Your task to perform on an android device: Is it going to rain tomorrow? Image 0: 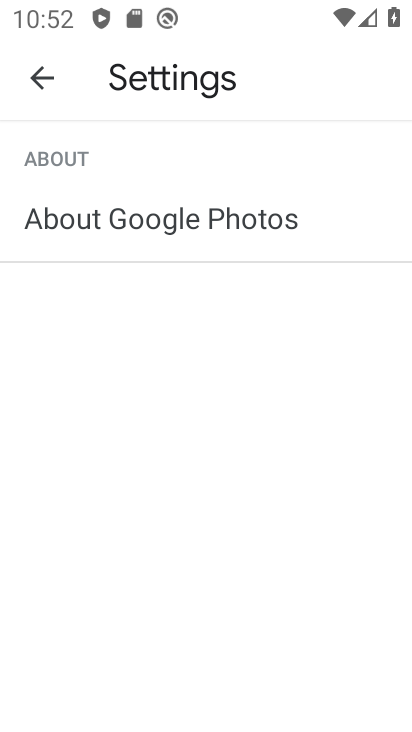
Step 0: press home button
Your task to perform on an android device: Is it going to rain tomorrow? Image 1: 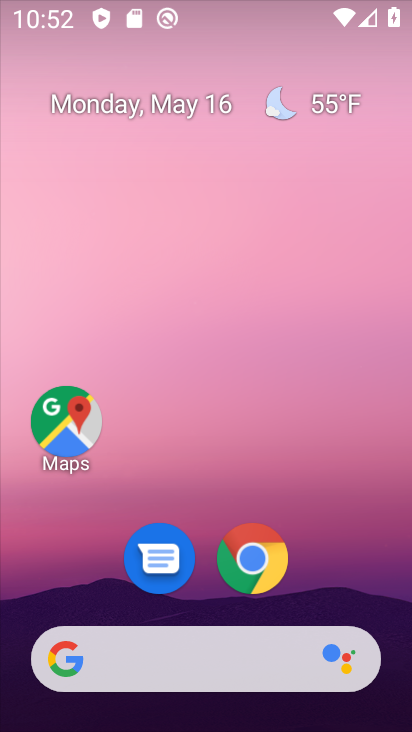
Step 1: drag from (216, 580) to (205, 126)
Your task to perform on an android device: Is it going to rain tomorrow? Image 2: 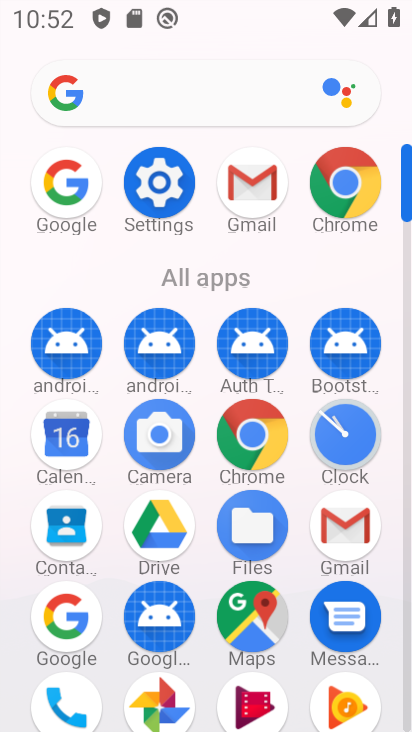
Step 2: click (70, 180)
Your task to perform on an android device: Is it going to rain tomorrow? Image 3: 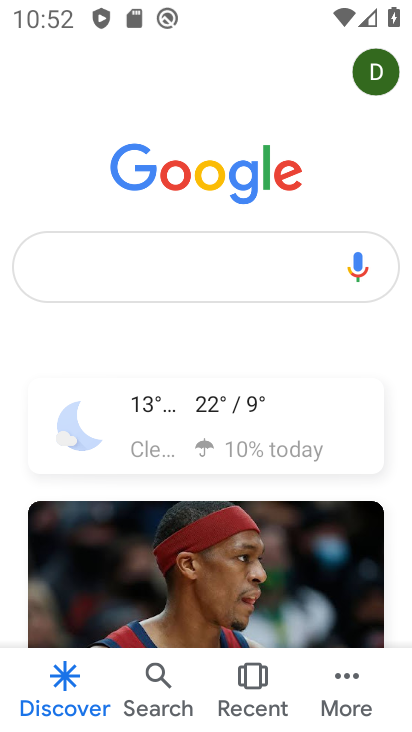
Step 3: click (172, 276)
Your task to perform on an android device: Is it going to rain tomorrow? Image 4: 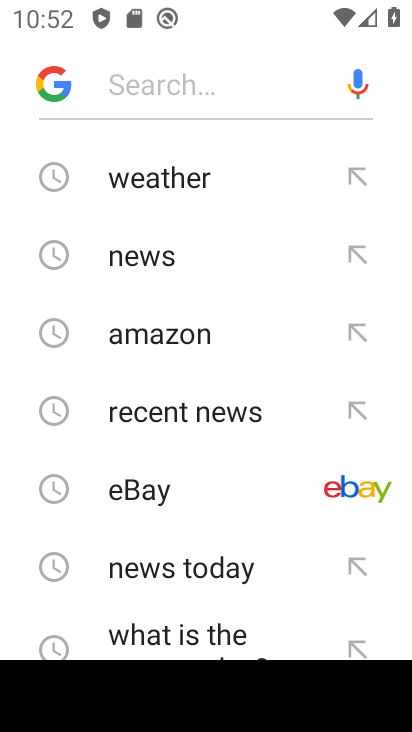
Step 4: type "is it going to rain tomorrow"
Your task to perform on an android device: Is it going to rain tomorrow? Image 5: 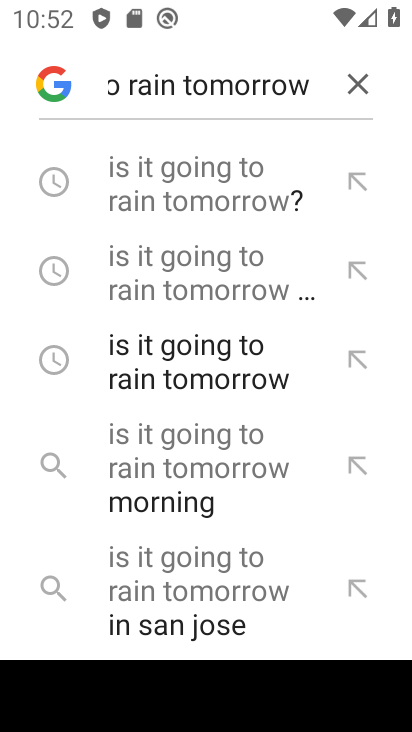
Step 5: click (245, 183)
Your task to perform on an android device: Is it going to rain tomorrow? Image 6: 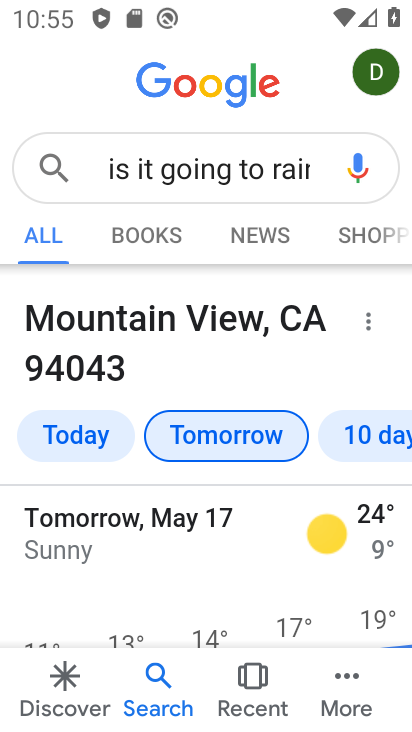
Step 6: task complete